Your task to perform on an android device: turn notification dots off Image 0: 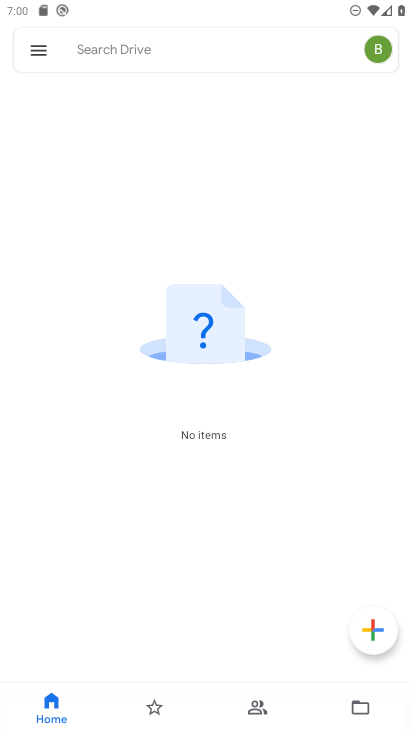
Step 0: press home button
Your task to perform on an android device: turn notification dots off Image 1: 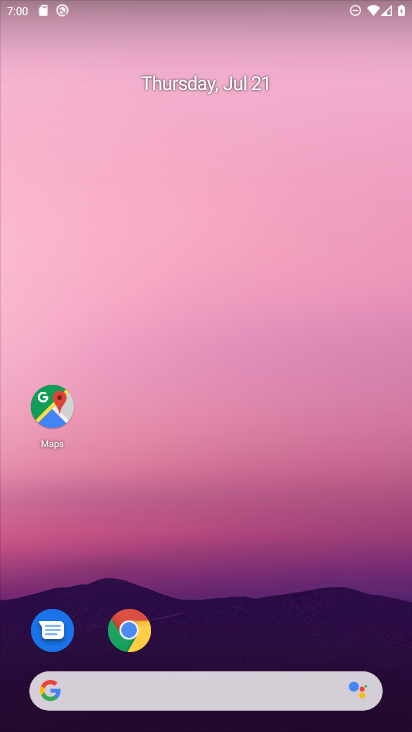
Step 1: drag from (194, 686) to (287, 201)
Your task to perform on an android device: turn notification dots off Image 2: 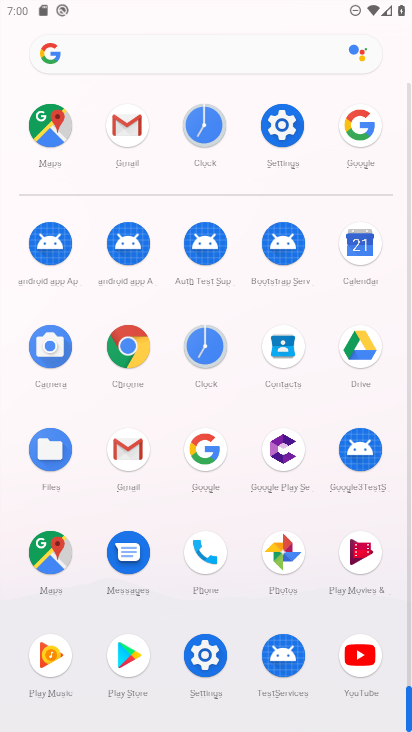
Step 2: click (282, 125)
Your task to perform on an android device: turn notification dots off Image 3: 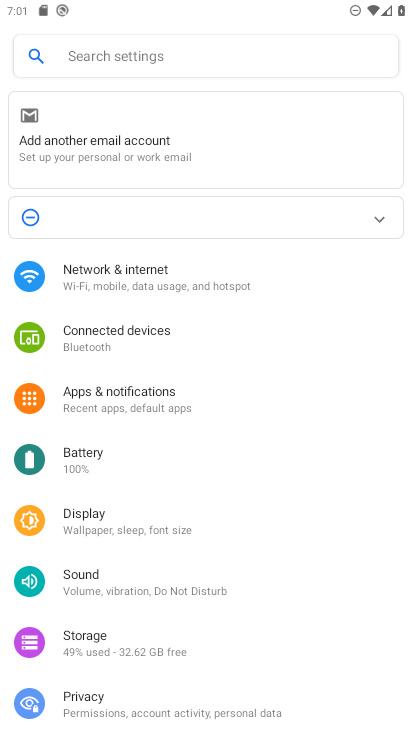
Step 3: click (107, 403)
Your task to perform on an android device: turn notification dots off Image 4: 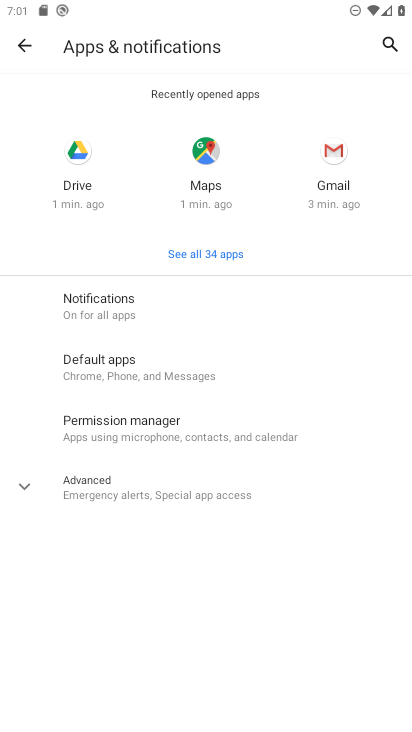
Step 4: click (111, 308)
Your task to perform on an android device: turn notification dots off Image 5: 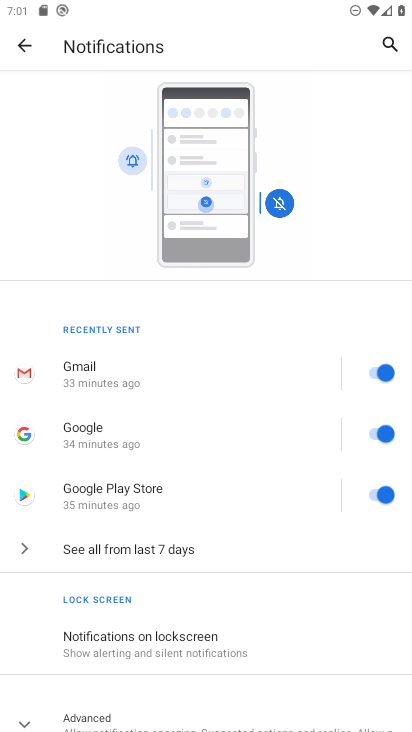
Step 5: drag from (164, 614) to (209, 359)
Your task to perform on an android device: turn notification dots off Image 6: 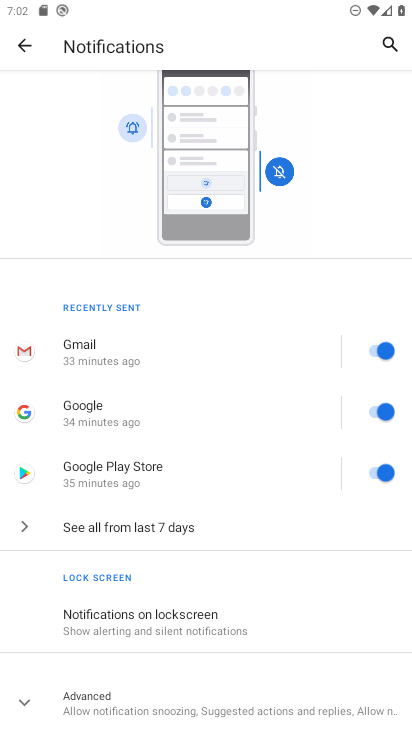
Step 6: click (165, 707)
Your task to perform on an android device: turn notification dots off Image 7: 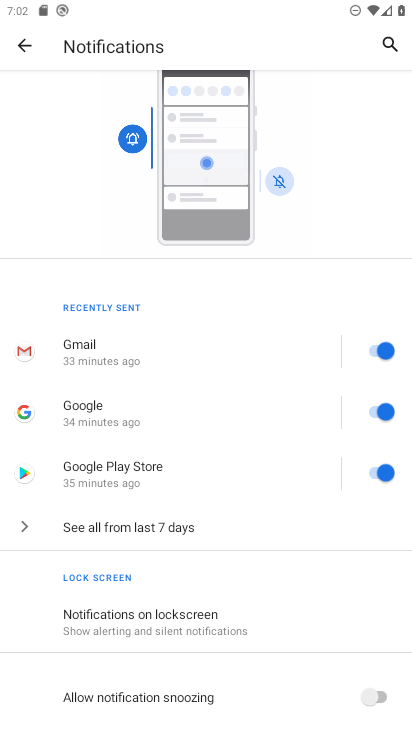
Step 7: drag from (162, 671) to (259, 458)
Your task to perform on an android device: turn notification dots off Image 8: 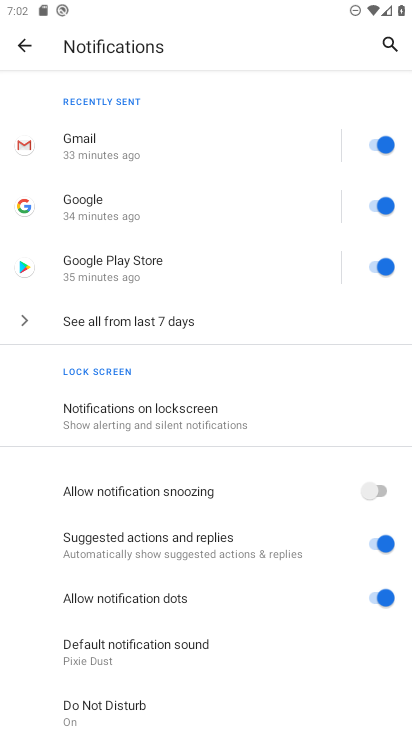
Step 8: click (379, 600)
Your task to perform on an android device: turn notification dots off Image 9: 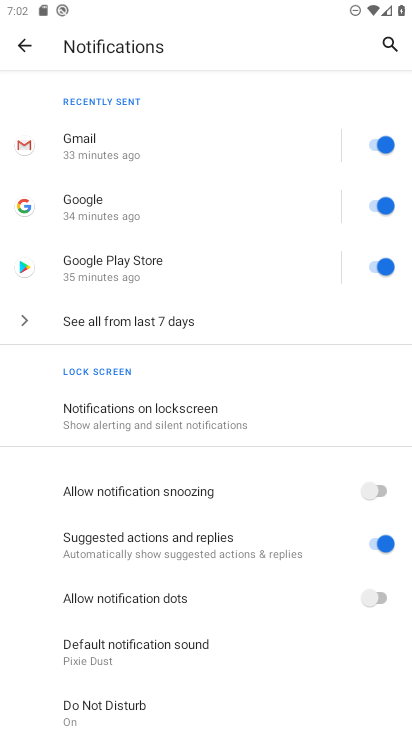
Step 9: task complete